Your task to perform on an android device: Open privacy settings Image 0: 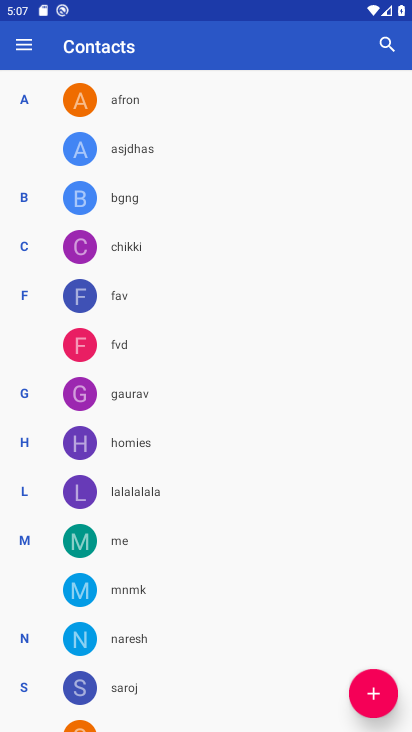
Step 0: press home button
Your task to perform on an android device: Open privacy settings Image 1: 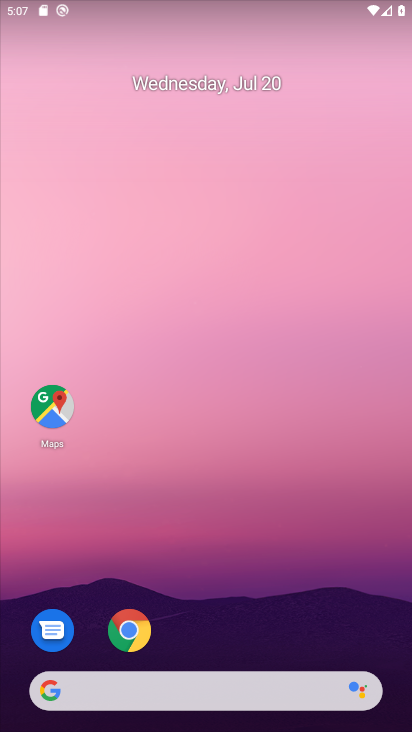
Step 1: drag from (274, 479) to (339, 5)
Your task to perform on an android device: Open privacy settings Image 2: 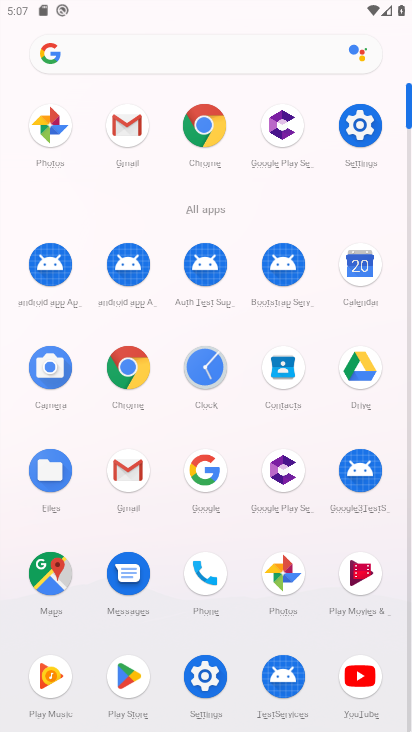
Step 2: click (364, 145)
Your task to perform on an android device: Open privacy settings Image 3: 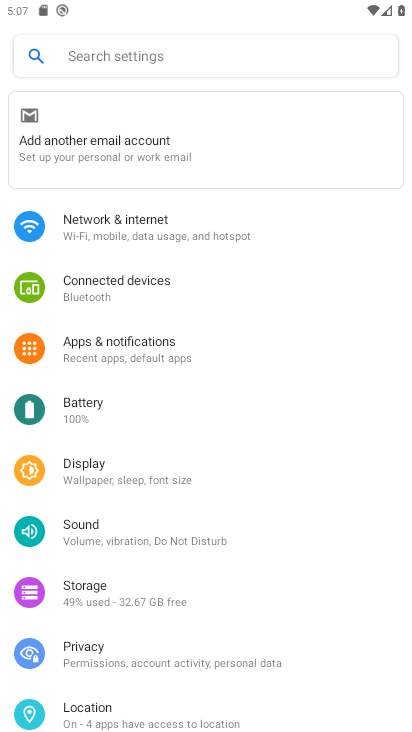
Step 3: click (95, 648)
Your task to perform on an android device: Open privacy settings Image 4: 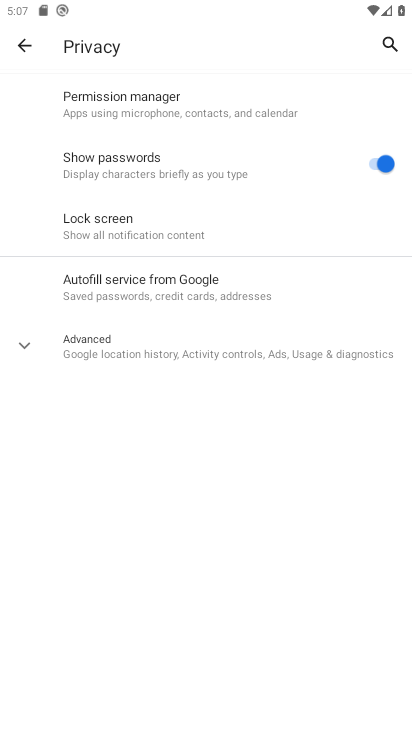
Step 4: task complete